Your task to perform on an android device: change alarm snooze length Image 0: 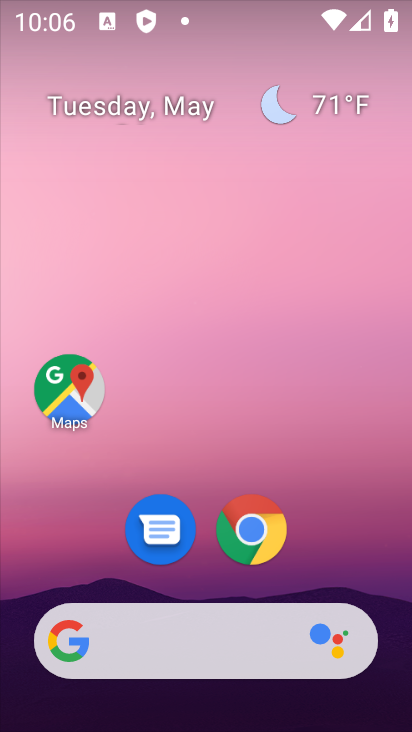
Step 0: drag from (320, 651) to (324, 374)
Your task to perform on an android device: change alarm snooze length Image 1: 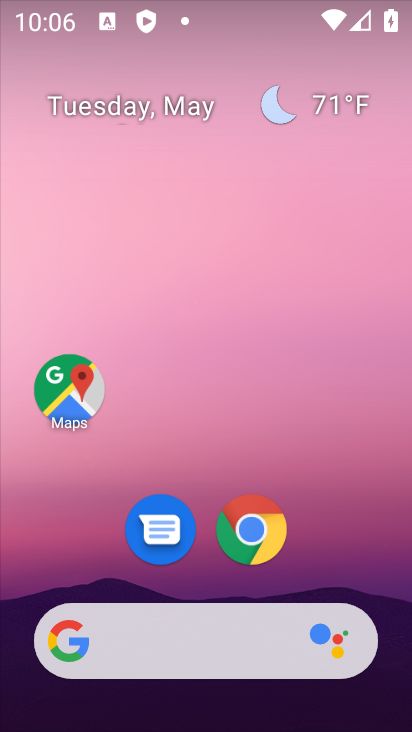
Step 1: drag from (334, 664) to (264, 198)
Your task to perform on an android device: change alarm snooze length Image 2: 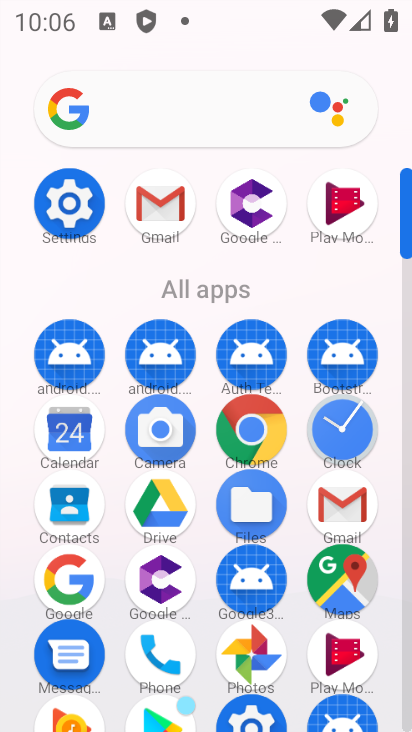
Step 2: click (344, 421)
Your task to perform on an android device: change alarm snooze length Image 3: 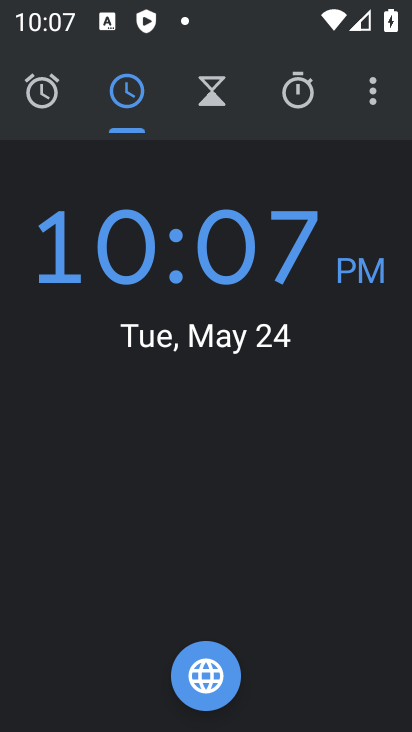
Step 3: click (373, 100)
Your task to perform on an android device: change alarm snooze length Image 4: 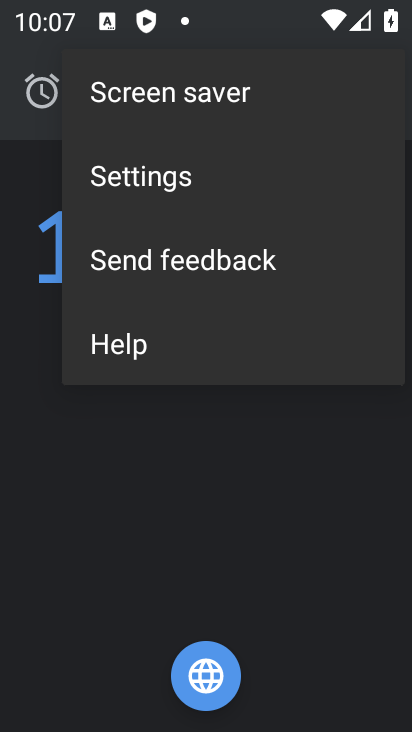
Step 4: click (222, 189)
Your task to perform on an android device: change alarm snooze length Image 5: 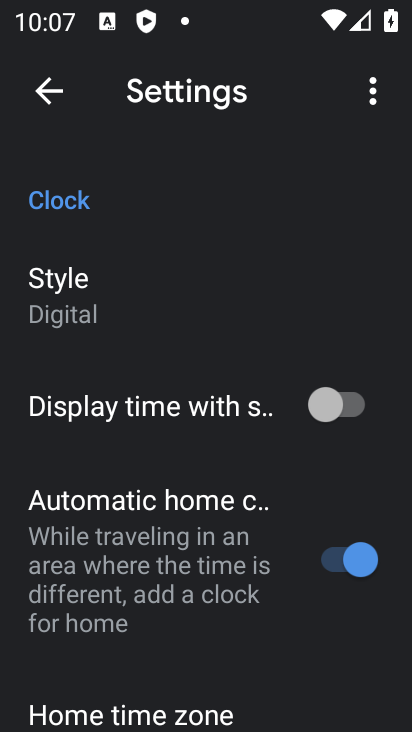
Step 5: drag from (180, 457) to (168, 362)
Your task to perform on an android device: change alarm snooze length Image 6: 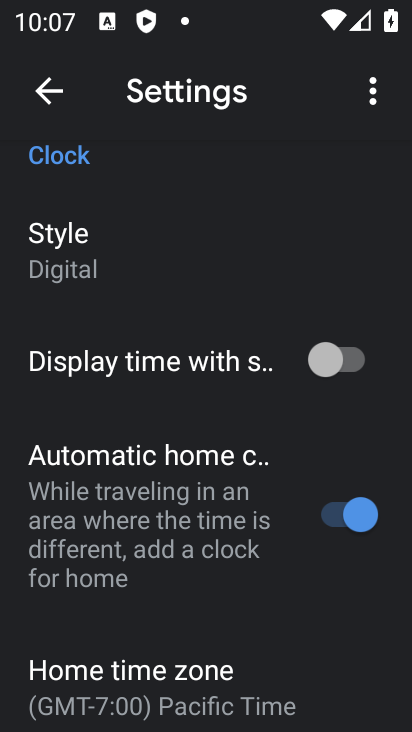
Step 6: drag from (206, 561) to (193, 407)
Your task to perform on an android device: change alarm snooze length Image 7: 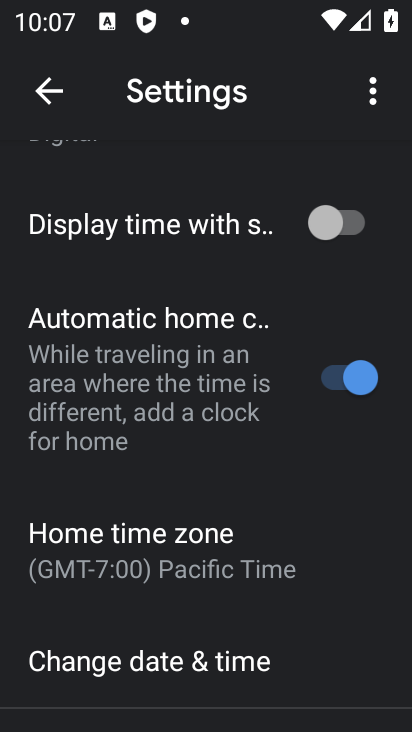
Step 7: drag from (217, 599) to (215, 428)
Your task to perform on an android device: change alarm snooze length Image 8: 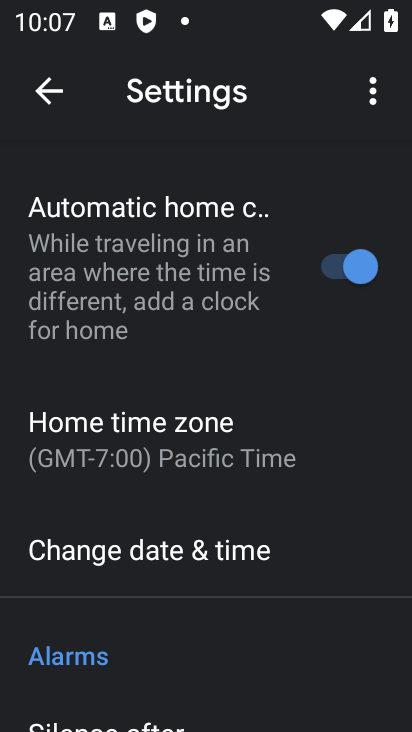
Step 8: drag from (259, 615) to (271, 421)
Your task to perform on an android device: change alarm snooze length Image 9: 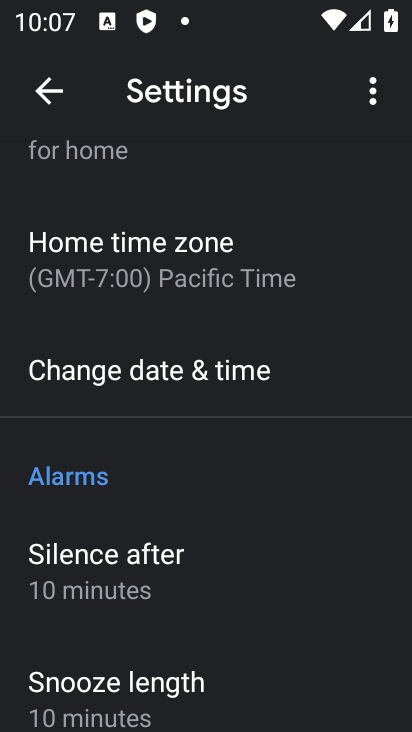
Step 9: drag from (246, 617) to (256, 413)
Your task to perform on an android device: change alarm snooze length Image 10: 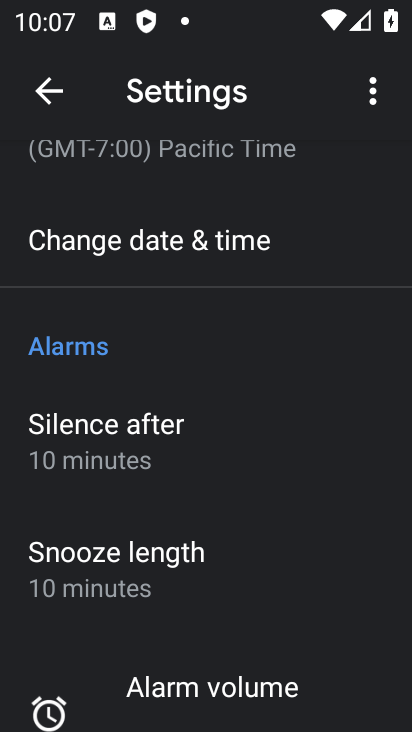
Step 10: click (188, 575)
Your task to perform on an android device: change alarm snooze length Image 11: 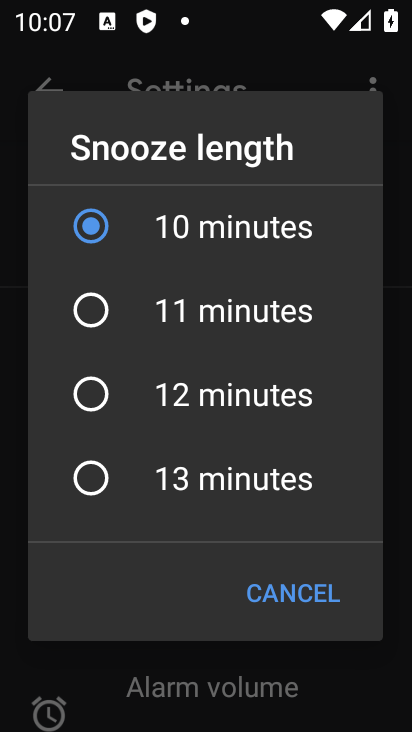
Step 11: click (223, 389)
Your task to perform on an android device: change alarm snooze length Image 12: 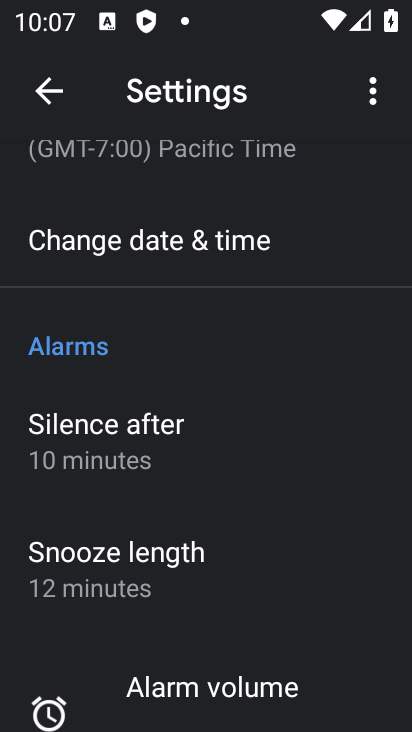
Step 12: task complete